Your task to perform on an android device: Open Google Image 0: 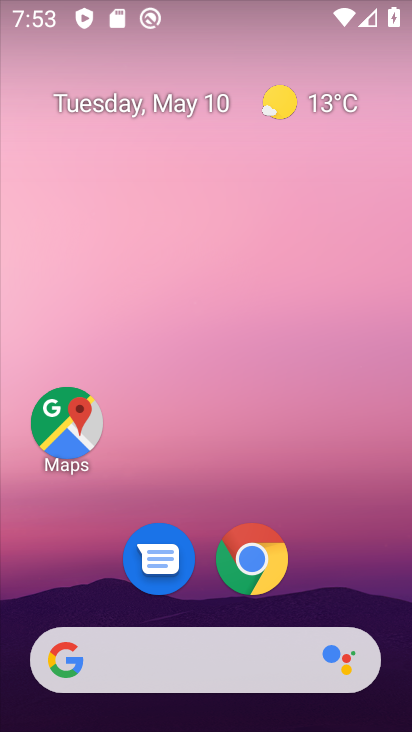
Step 0: drag from (196, 721) to (161, 215)
Your task to perform on an android device: Open Google Image 1: 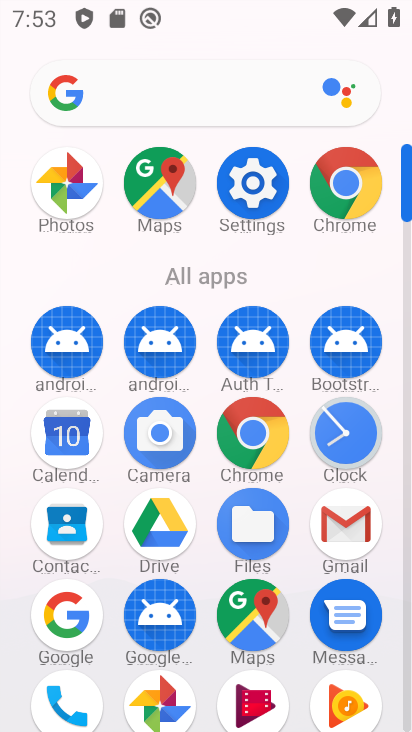
Step 1: click (77, 606)
Your task to perform on an android device: Open Google Image 2: 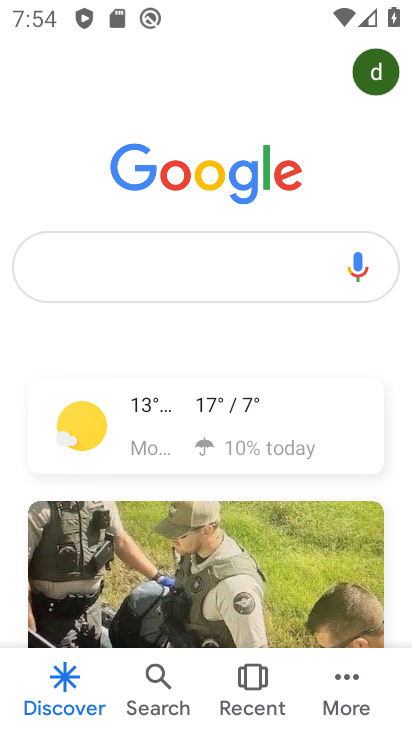
Step 2: task complete